Your task to perform on an android device: What's the weather today? Image 0: 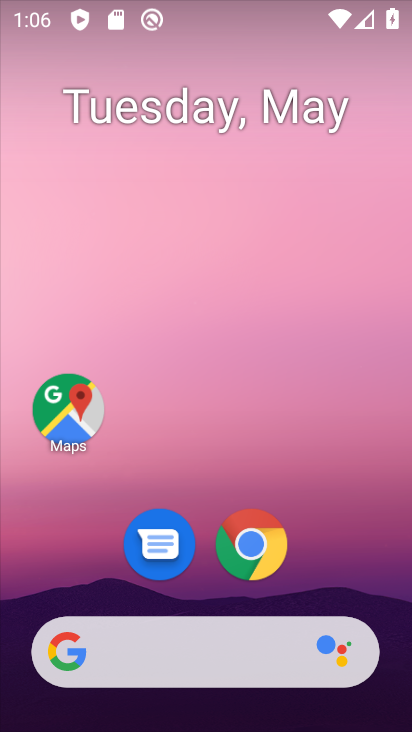
Step 0: click (233, 554)
Your task to perform on an android device: What's the weather today? Image 1: 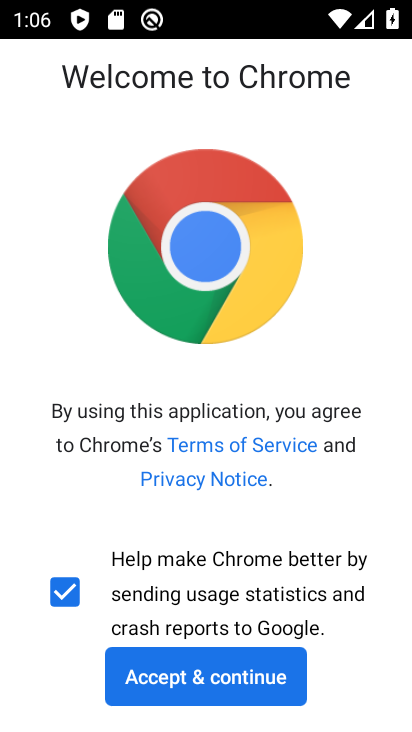
Step 1: click (197, 672)
Your task to perform on an android device: What's the weather today? Image 2: 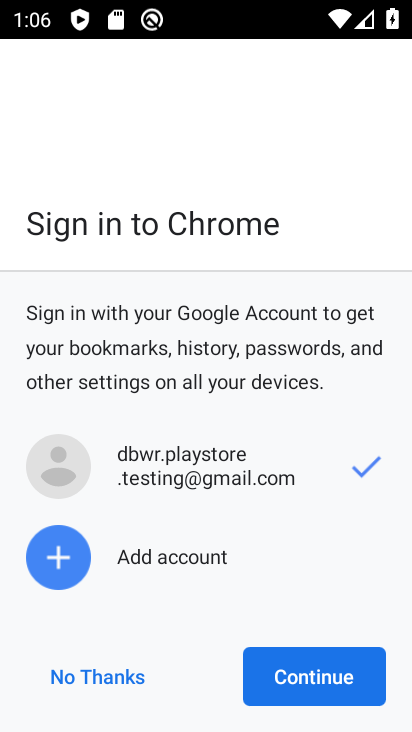
Step 2: click (353, 694)
Your task to perform on an android device: What's the weather today? Image 3: 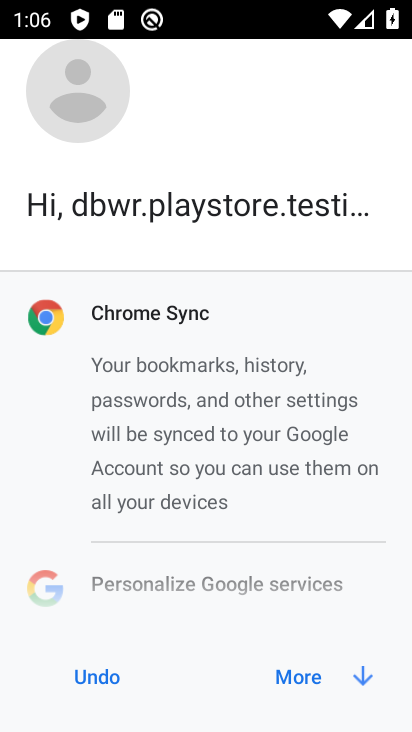
Step 3: click (313, 685)
Your task to perform on an android device: What's the weather today? Image 4: 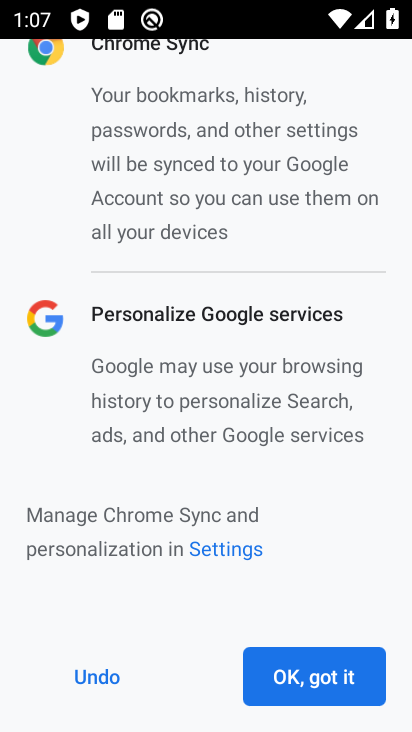
Step 4: click (312, 682)
Your task to perform on an android device: What's the weather today? Image 5: 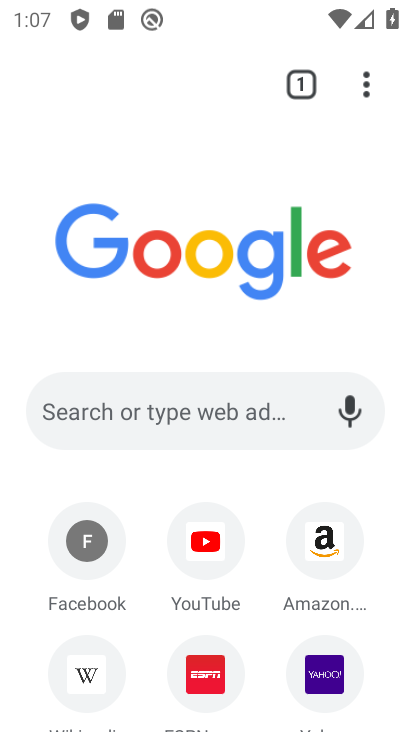
Step 5: click (160, 414)
Your task to perform on an android device: What's the weather today? Image 6: 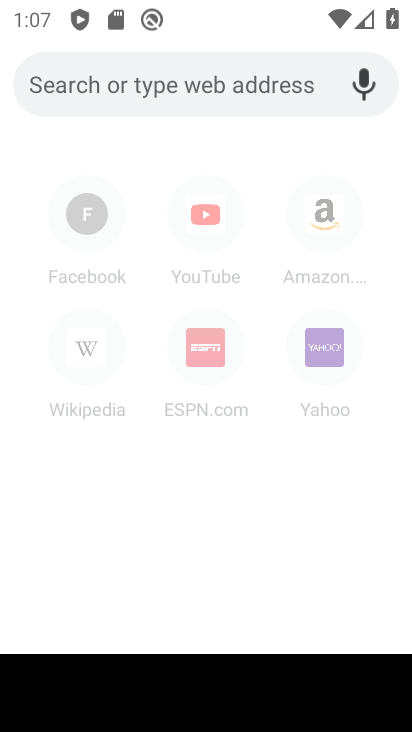
Step 6: type "weather today "
Your task to perform on an android device: What's the weather today? Image 7: 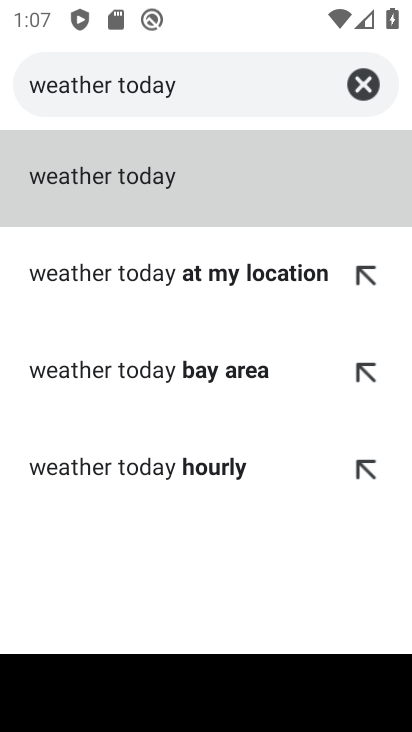
Step 7: click (154, 186)
Your task to perform on an android device: What's the weather today? Image 8: 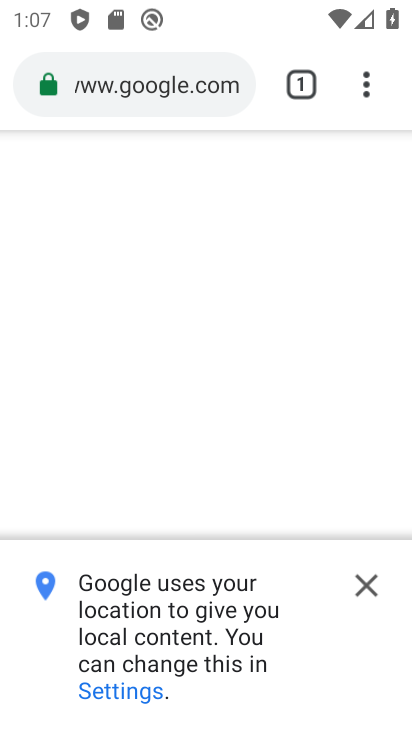
Step 8: click (362, 590)
Your task to perform on an android device: What's the weather today? Image 9: 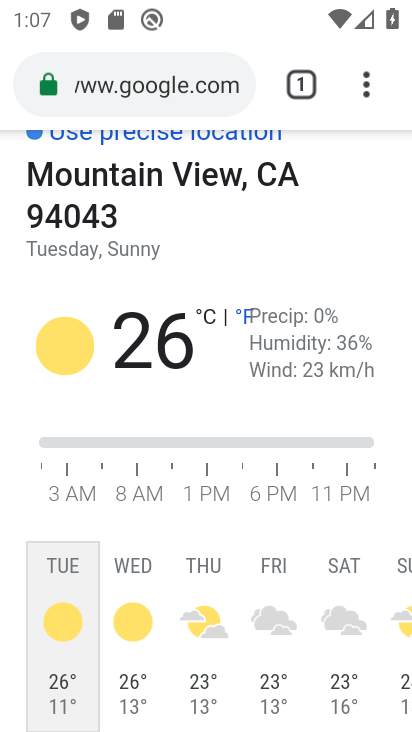
Step 9: task complete